Your task to perform on an android device: Open wifi settings Image 0: 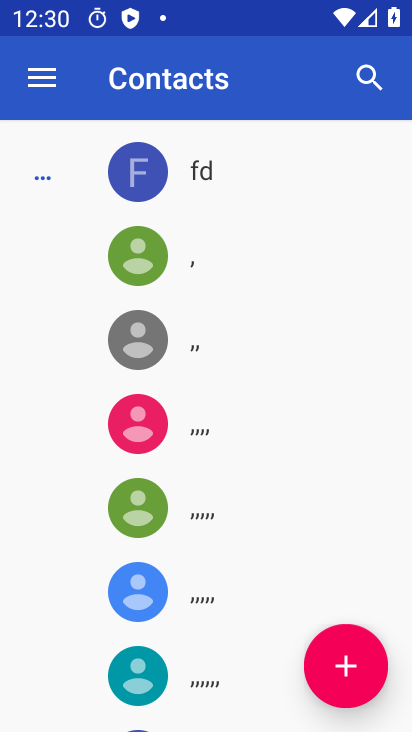
Step 0: press home button
Your task to perform on an android device: Open wifi settings Image 1: 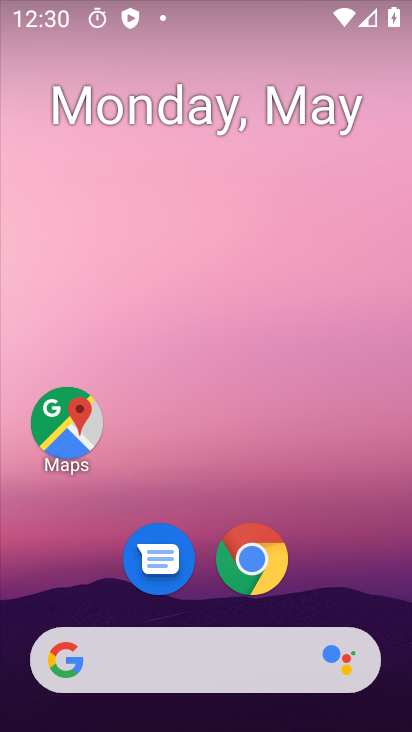
Step 1: drag from (292, 679) to (208, 0)
Your task to perform on an android device: Open wifi settings Image 2: 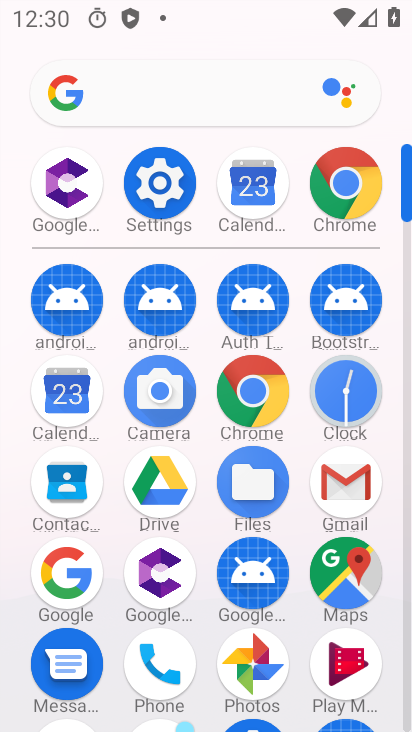
Step 2: click (145, 184)
Your task to perform on an android device: Open wifi settings Image 3: 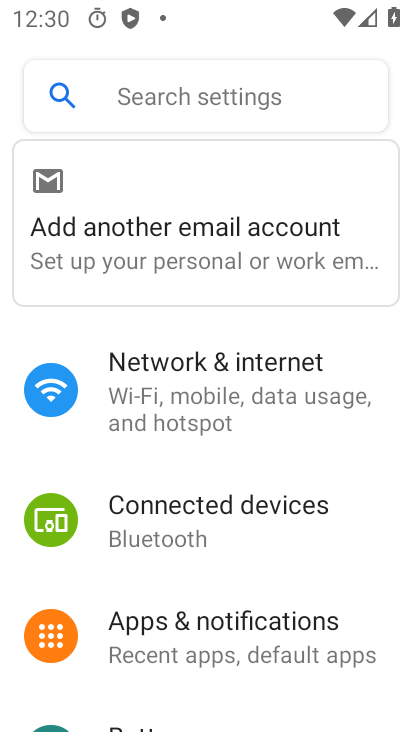
Step 3: click (219, 363)
Your task to perform on an android device: Open wifi settings Image 4: 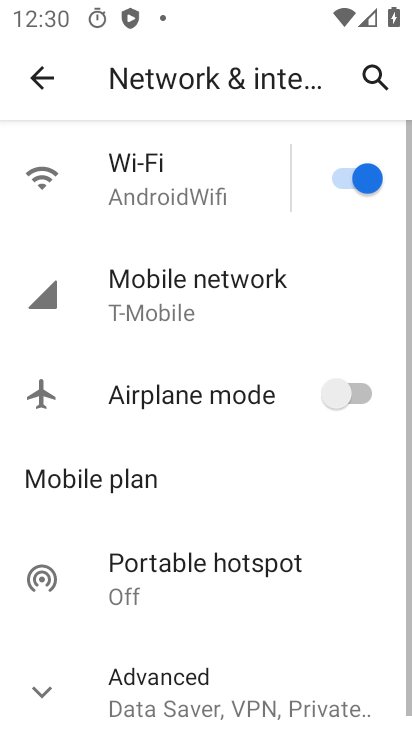
Step 4: click (171, 176)
Your task to perform on an android device: Open wifi settings Image 5: 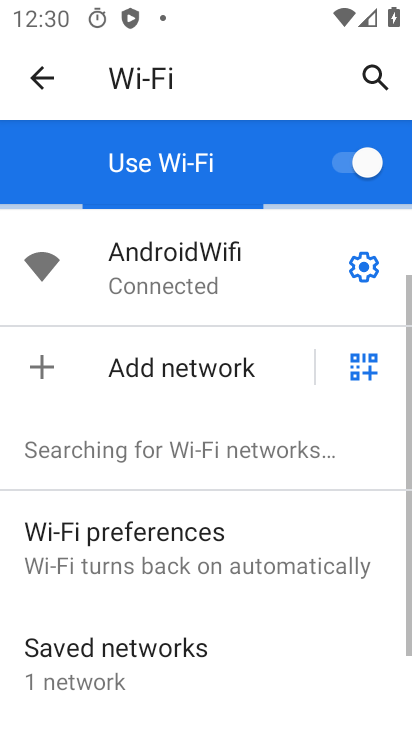
Step 5: task complete